Your task to perform on an android device: Open the calendar and show me this week's events? Image 0: 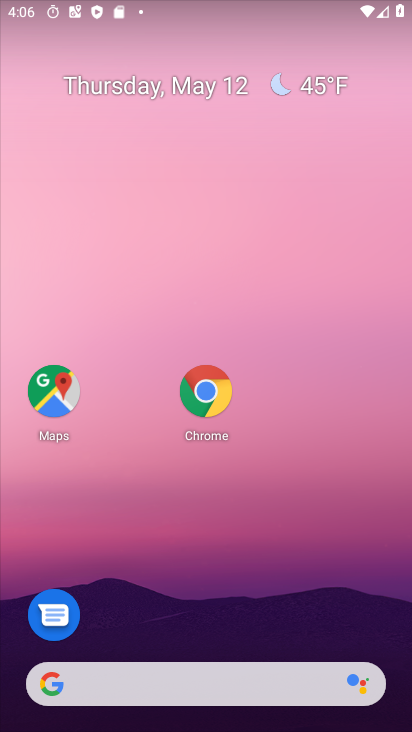
Step 0: drag from (237, 596) to (219, 55)
Your task to perform on an android device: Open the calendar and show me this week's events? Image 1: 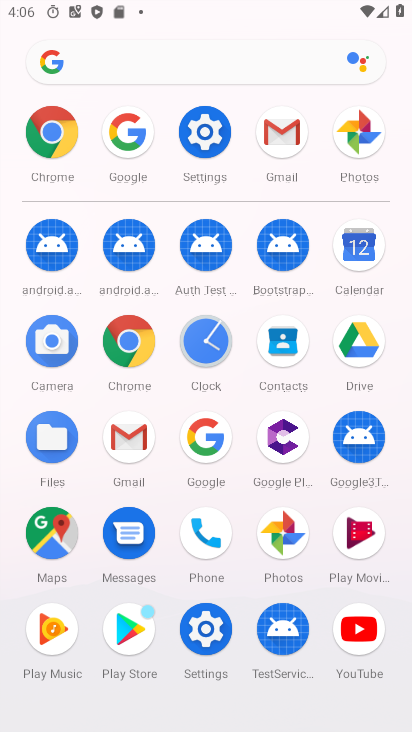
Step 1: click (355, 252)
Your task to perform on an android device: Open the calendar and show me this week's events? Image 2: 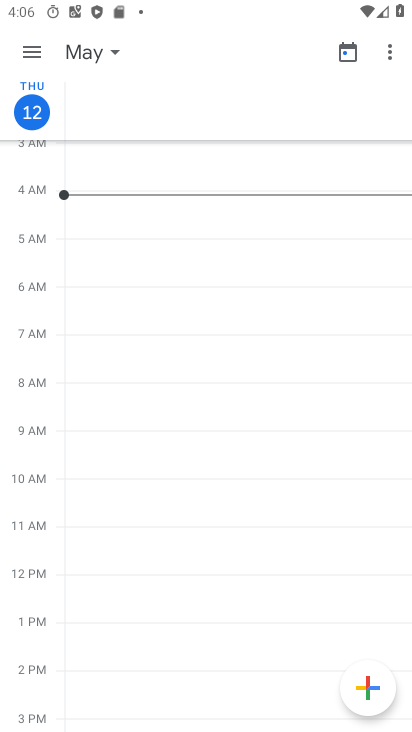
Step 2: click (109, 56)
Your task to perform on an android device: Open the calendar and show me this week's events? Image 3: 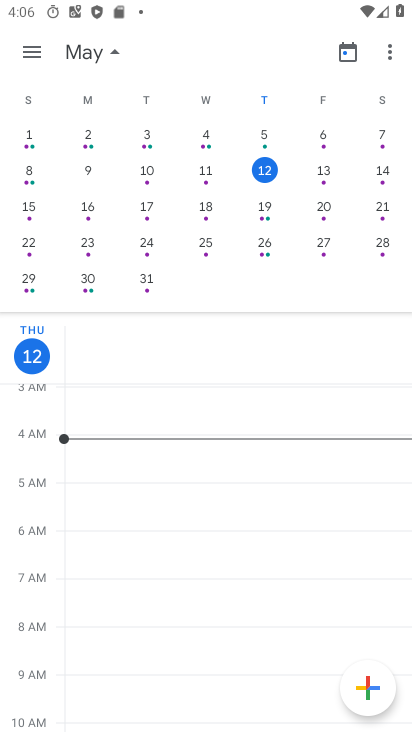
Step 3: click (267, 206)
Your task to perform on an android device: Open the calendar and show me this week's events? Image 4: 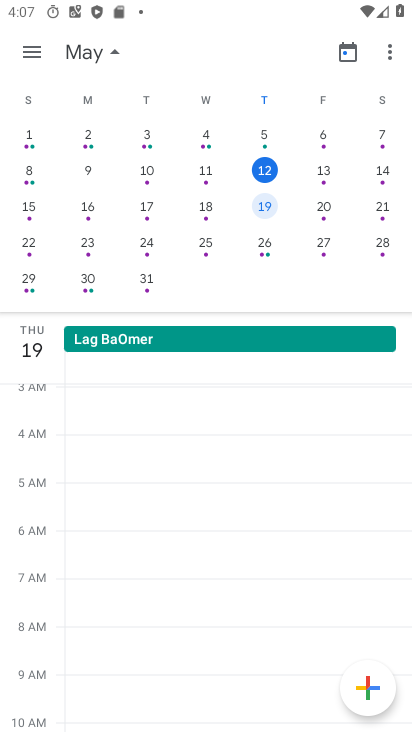
Step 4: task complete